Your task to perform on an android device: change your default location settings in chrome Image 0: 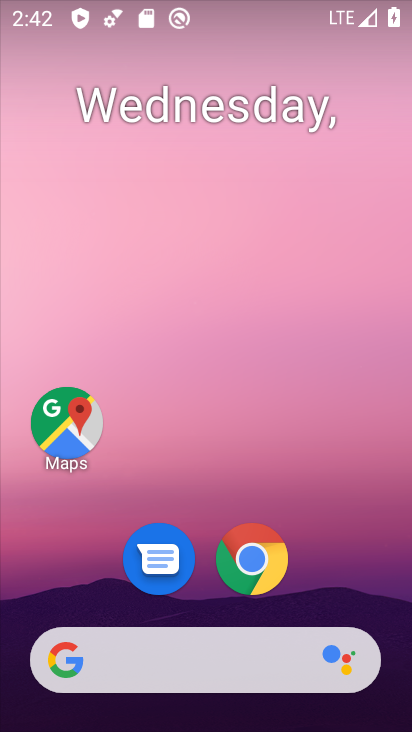
Step 0: drag from (343, 592) to (337, 260)
Your task to perform on an android device: change your default location settings in chrome Image 1: 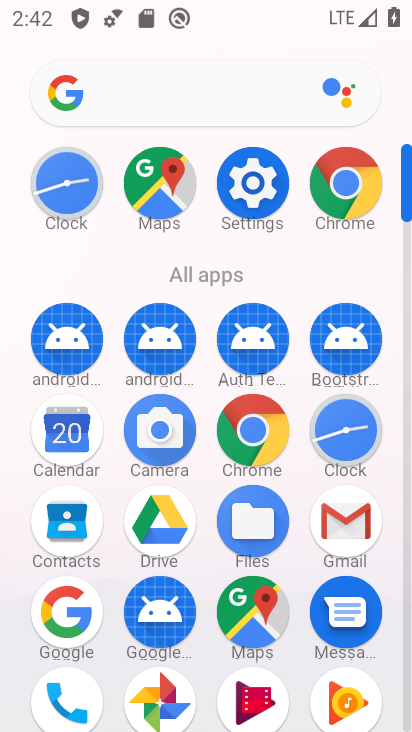
Step 1: drag from (391, 467) to (397, 306)
Your task to perform on an android device: change your default location settings in chrome Image 2: 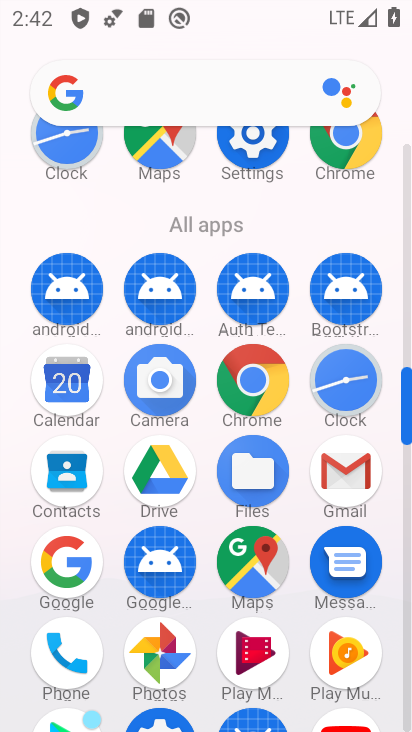
Step 2: click (273, 372)
Your task to perform on an android device: change your default location settings in chrome Image 3: 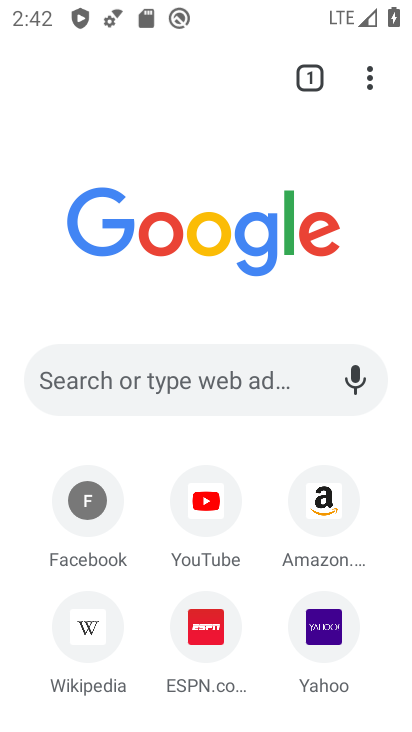
Step 3: click (285, 379)
Your task to perform on an android device: change your default location settings in chrome Image 4: 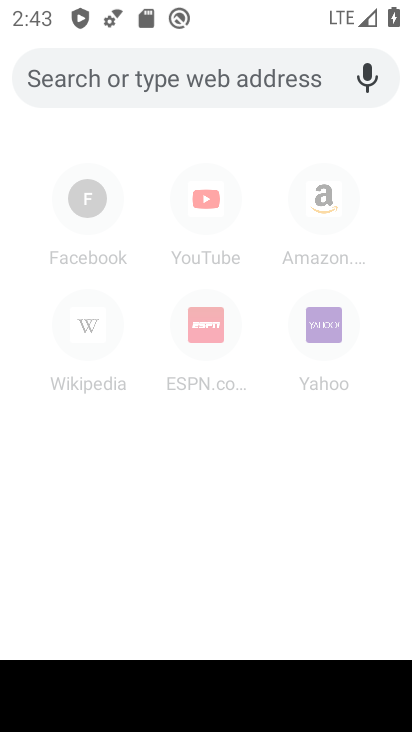
Step 4: click (19, 231)
Your task to perform on an android device: change your default location settings in chrome Image 5: 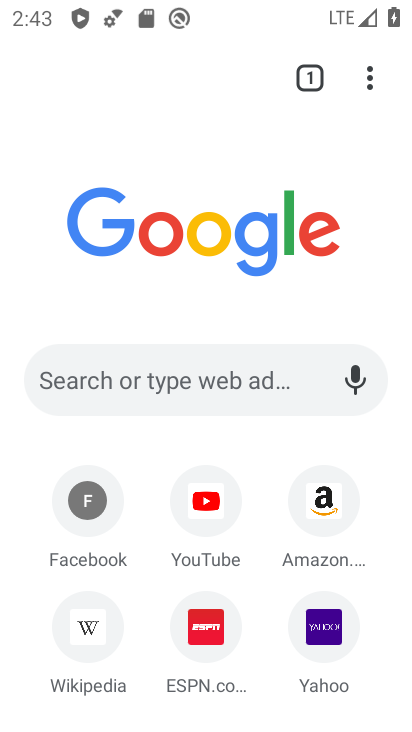
Step 5: drag from (371, 90) to (231, 621)
Your task to perform on an android device: change your default location settings in chrome Image 6: 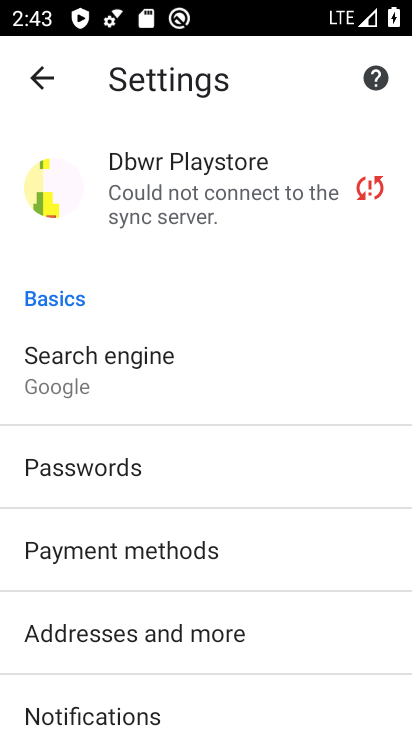
Step 6: drag from (283, 663) to (271, 409)
Your task to perform on an android device: change your default location settings in chrome Image 7: 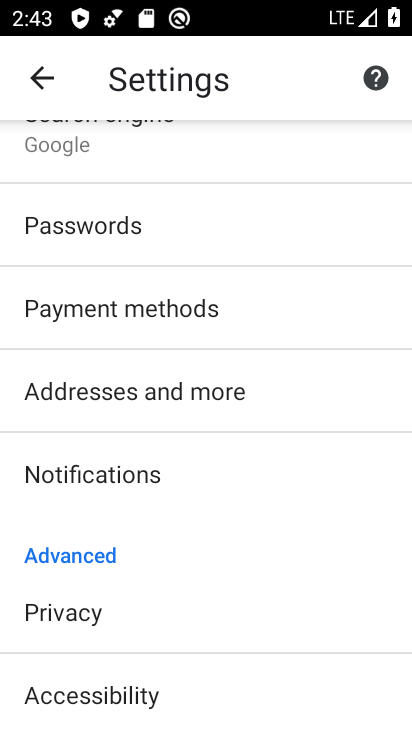
Step 7: drag from (316, 658) to (328, 376)
Your task to perform on an android device: change your default location settings in chrome Image 8: 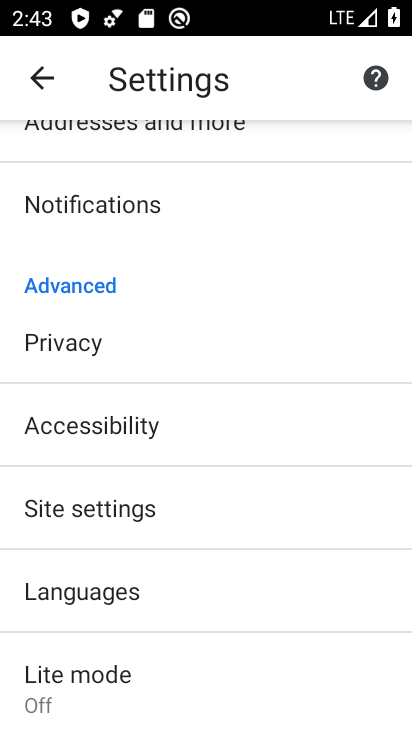
Step 8: drag from (283, 596) to (312, 365)
Your task to perform on an android device: change your default location settings in chrome Image 9: 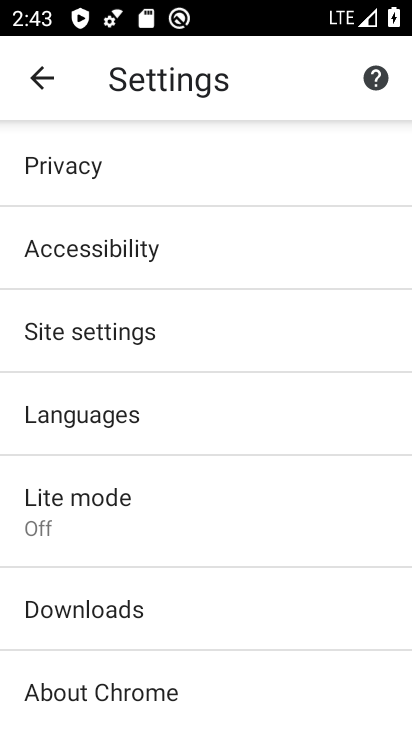
Step 9: click (144, 335)
Your task to perform on an android device: change your default location settings in chrome Image 10: 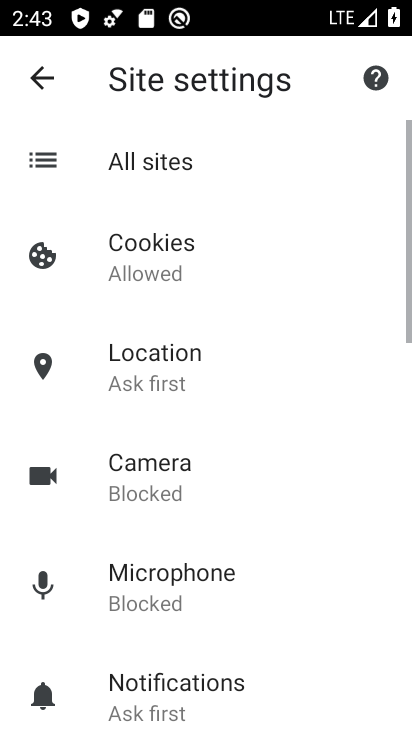
Step 10: click (160, 356)
Your task to perform on an android device: change your default location settings in chrome Image 11: 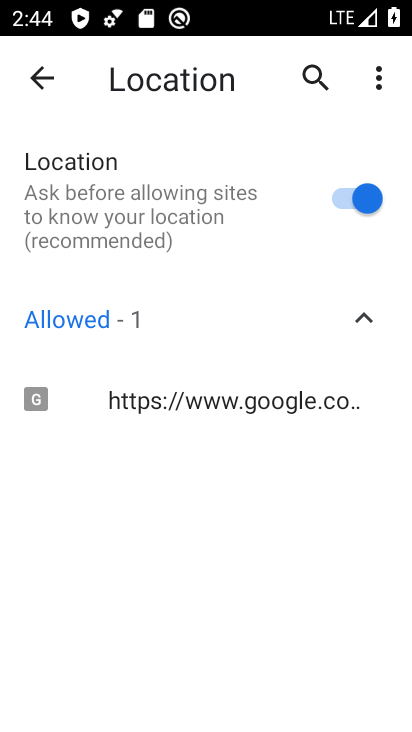
Step 11: click (344, 200)
Your task to perform on an android device: change your default location settings in chrome Image 12: 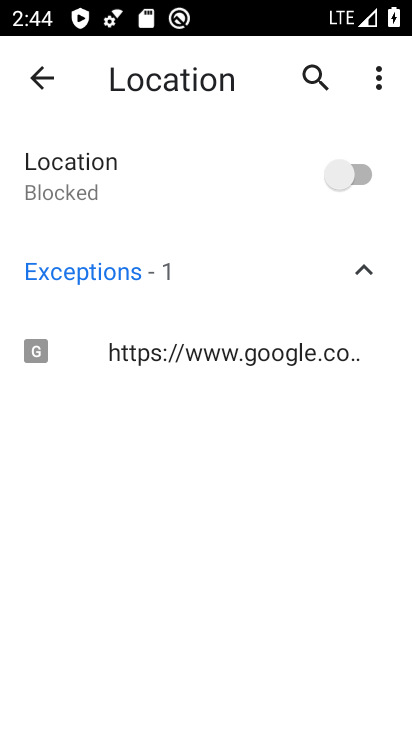
Step 12: task complete